Your task to perform on an android device: Show me popular videos on Youtube Image 0: 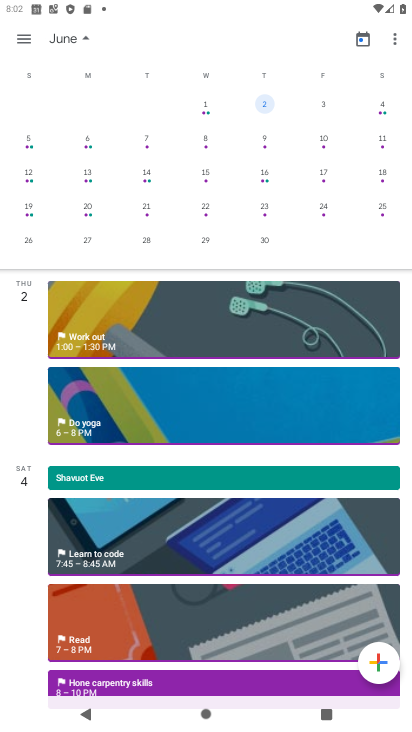
Step 0: press home button
Your task to perform on an android device: Show me popular videos on Youtube Image 1: 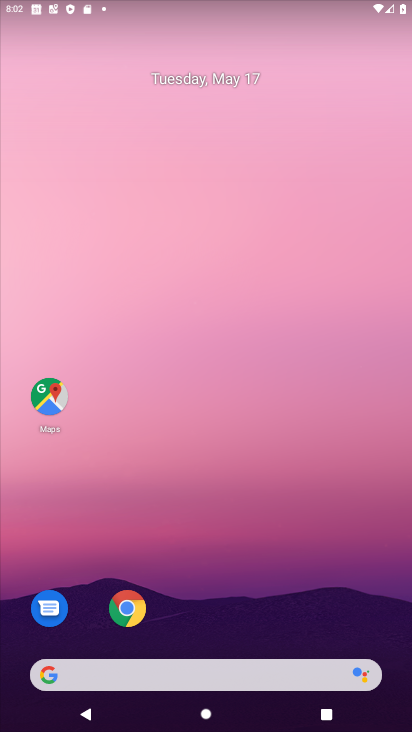
Step 1: drag from (212, 608) to (246, 98)
Your task to perform on an android device: Show me popular videos on Youtube Image 2: 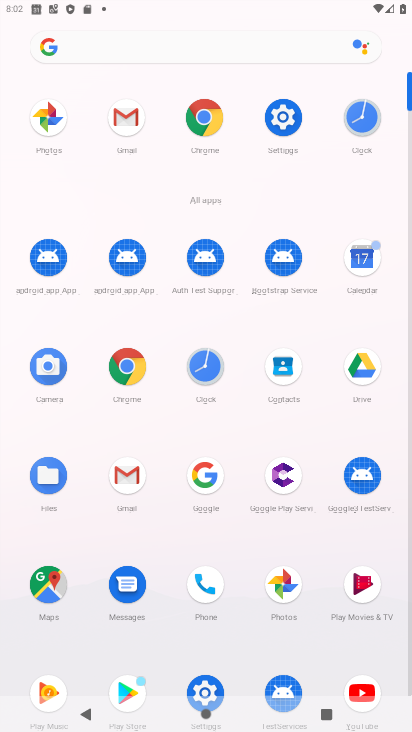
Step 2: click (359, 682)
Your task to perform on an android device: Show me popular videos on Youtube Image 3: 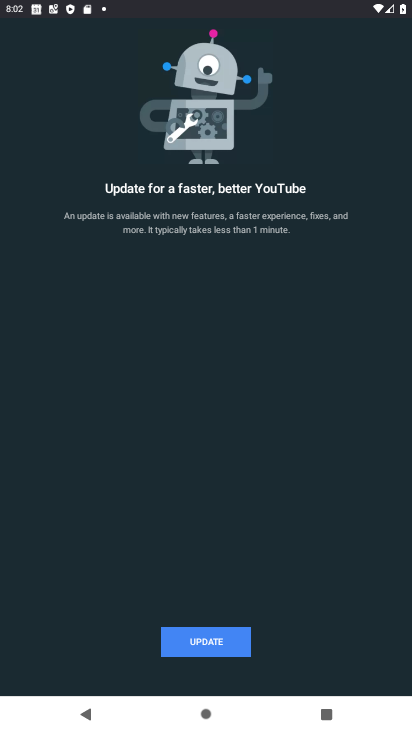
Step 3: click (219, 655)
Your task to perform on an android device: Show me popular videos on Youtube Image 4: 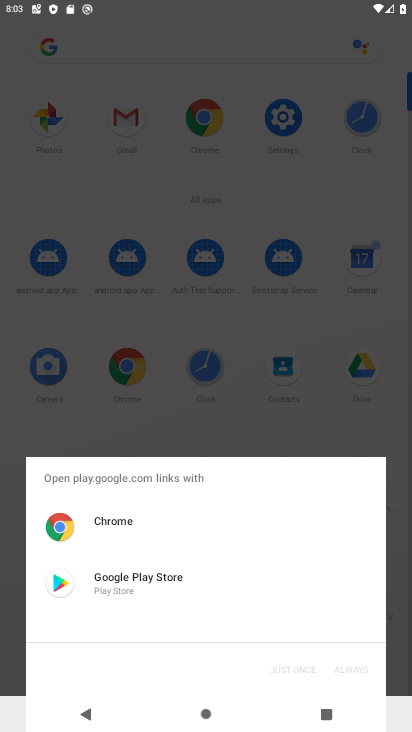
Step 4: click (163, 585)
Your task to perform on an android device: Show me popular videos on Youtube Image 5: 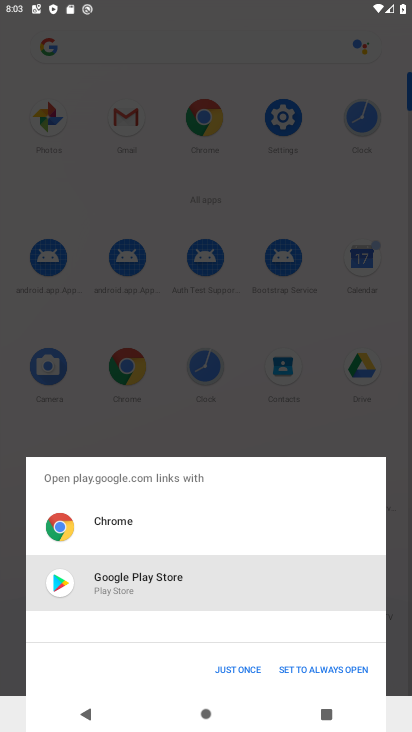
Step 5: click (234, 675)
Your task to perform on an android device: Show me popular videos on Youtube Image 6: 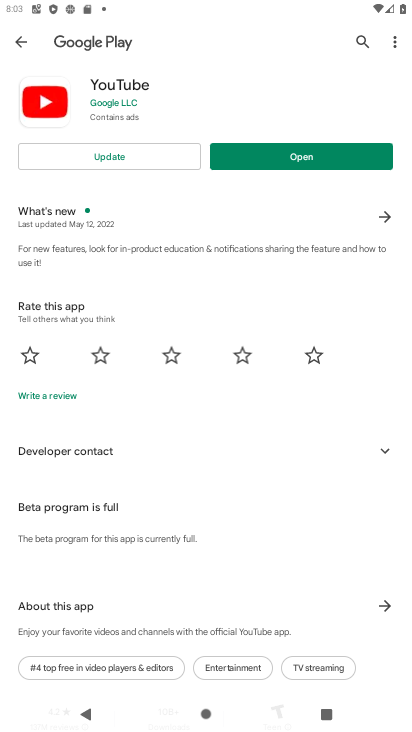
Step 6: click (169, 149)
Your task to perform on an android device: Show me popular videos on Youtube Image 7: 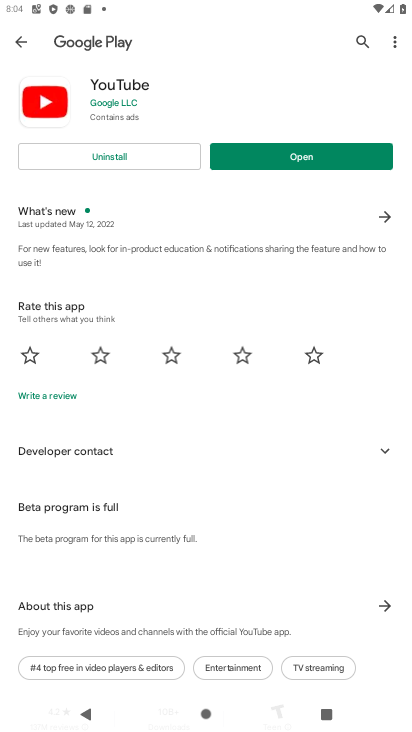
Step 7: click (270, 149)
Your task to perform on an android device: Show me popular videos on Youtube Image 8: 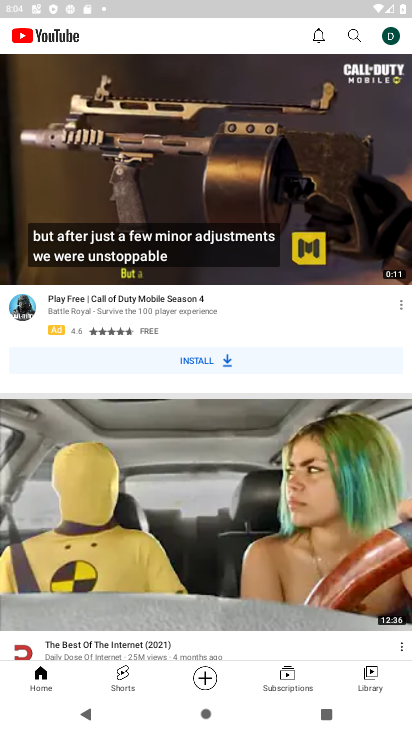
Step 8: drag from (165, 104) to (129, 616)
Your task to perform on an android device: Show me popular videos on Youtube Image 9: 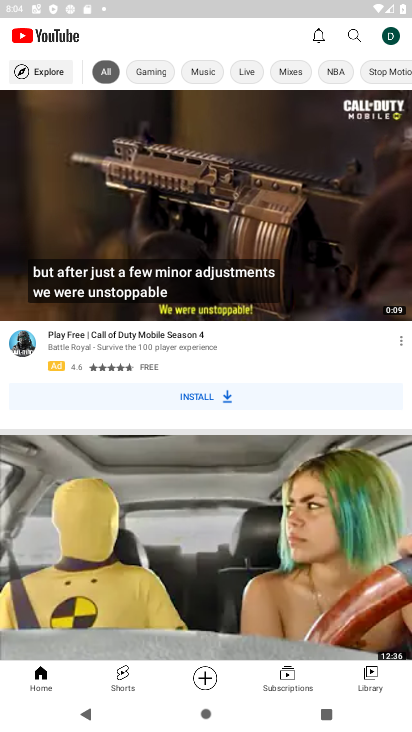
Step 9: click (44, 71)
Your task to perform on an android device: Show me popular videos on Youtube Image 10: 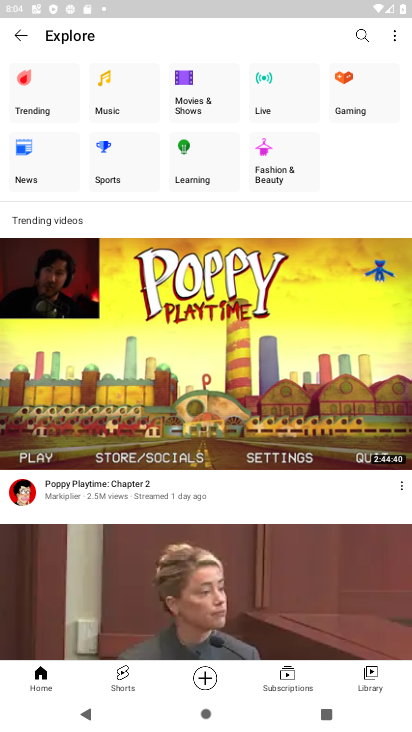
Step 10: click (56, 153)
Your task to perform on an android device: Show me popular videos on Youtube Image 11: 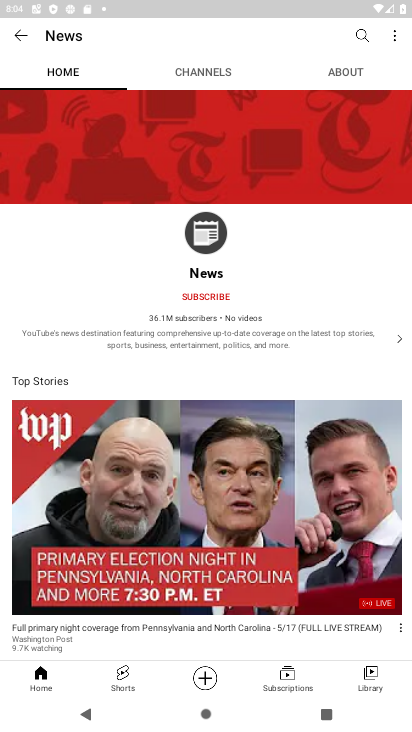
Step 11: click (15, 37)
Your task to perform on an android device: Show me popular videos on Youtube Image 12: 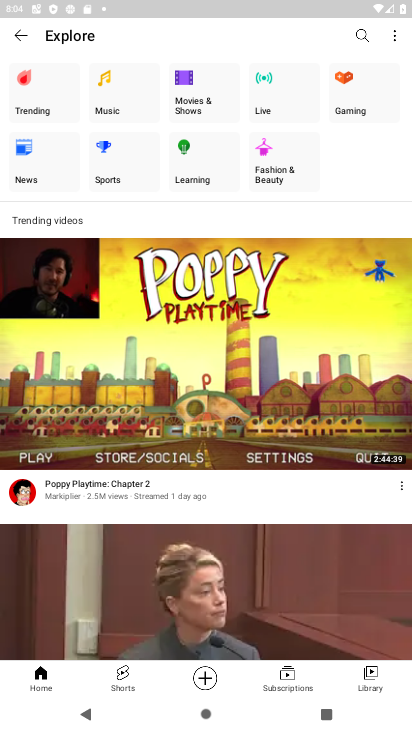
Step 12: click (46, 84)
Your task to perform on an android device: Show me popular videos on Youtube Image 13: 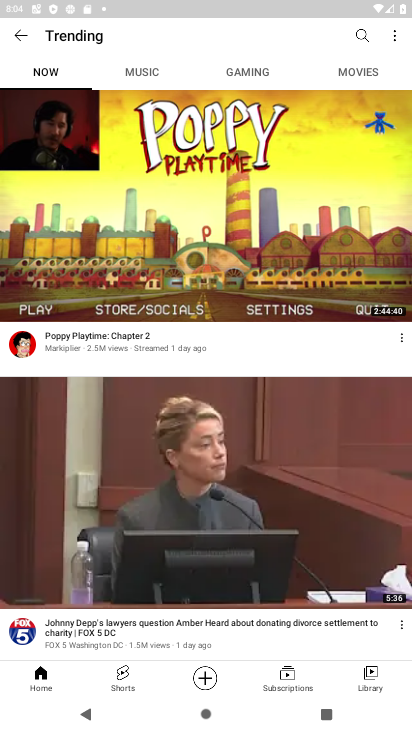
Step 13: task complete